Your task to perform on an android device: open app "Microsoft Authenticator" Image 0: 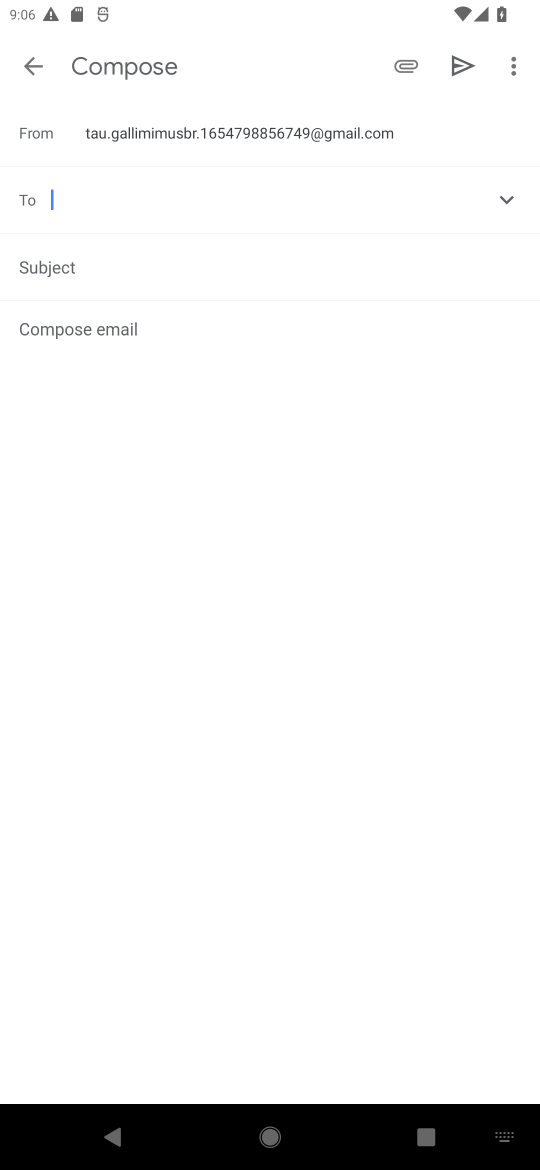
Step 0: press home button
Your task to perform on an android device: open app "Microsoft Authenticator" Image 1: 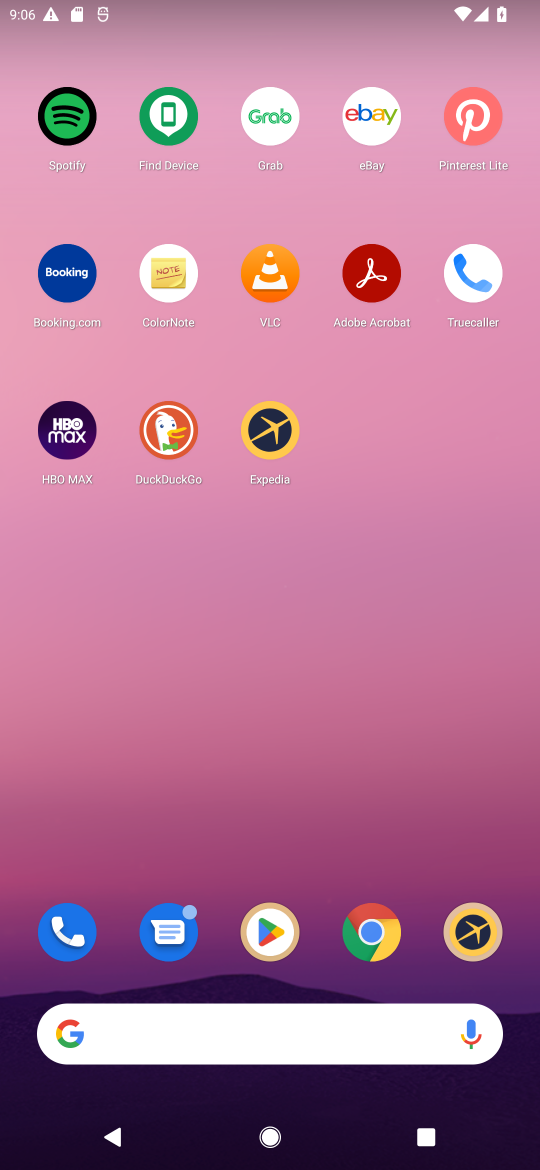
Step 1: click (273, 919)
Your task to perform on an android device: open app "Microsoft Authenticator" Image 2: 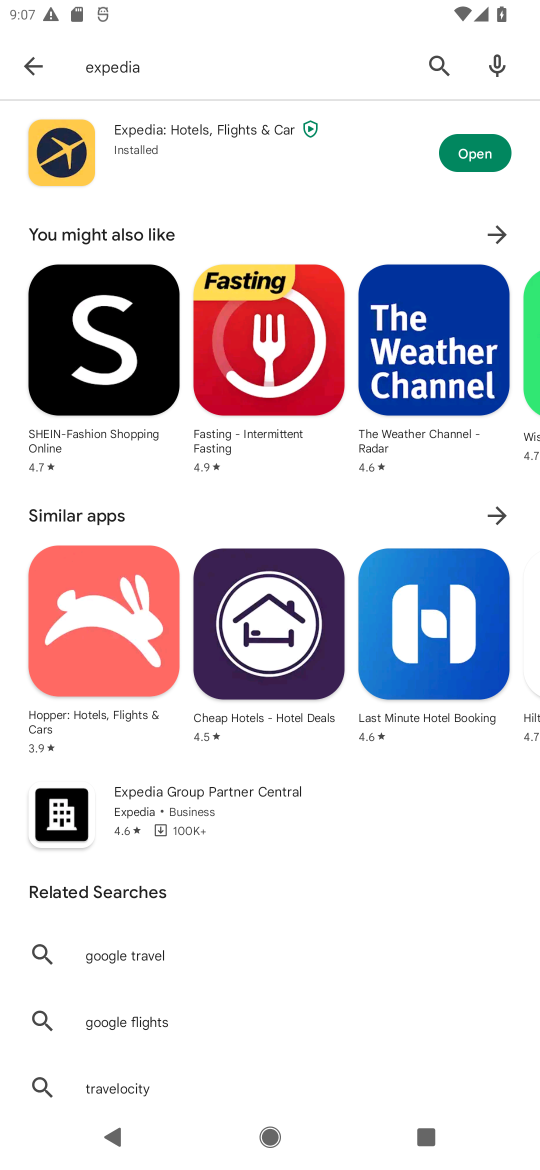
Step 2: click (430, 77)
Your task to perform on an android device: open app "Microsoft Authenticator" Image 3: 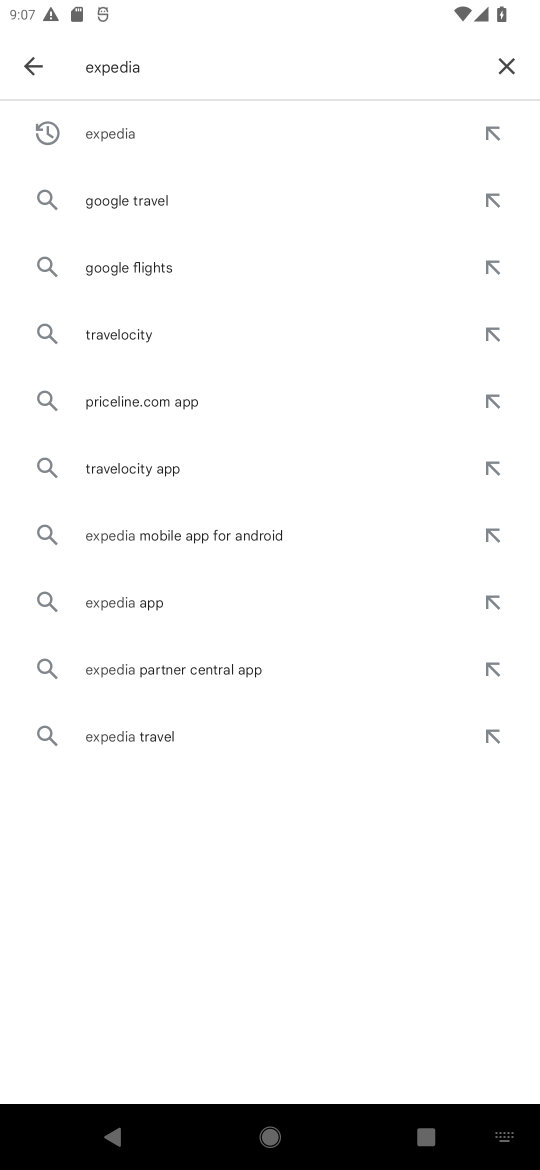
Step 3: click (506, 68)
Your task to perform on an android device: open app "Microsoft Authenticator" Image 4: 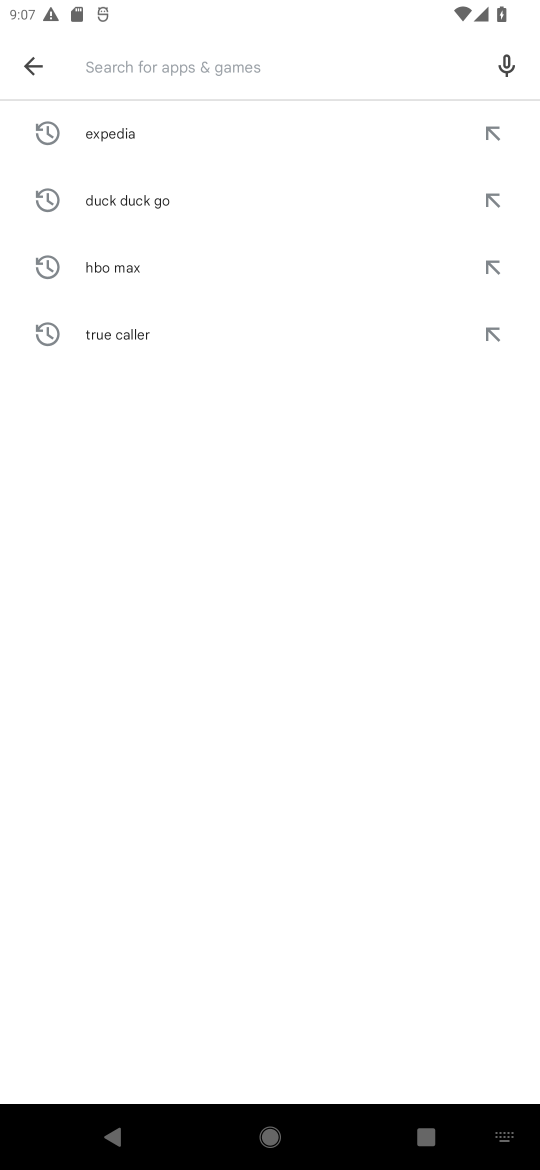
Step 4: type "microsoft"
Your task to perform on an android device: open app "Microsoft Authenticator" Image 5: 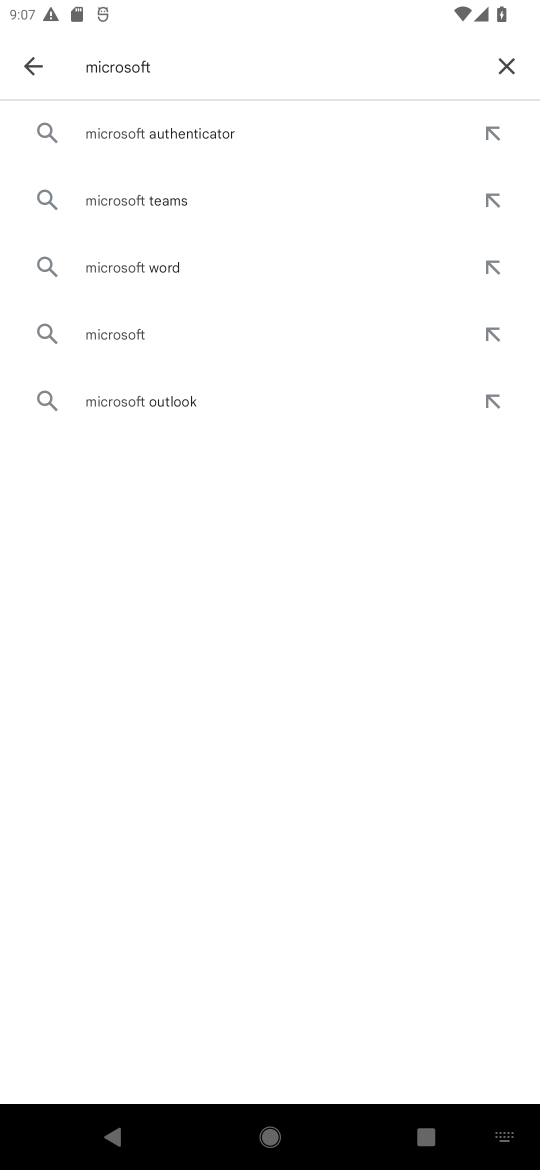
Step 5: click (178, 139)
Your task to perform on an android device: open app "Microsoft Authenticator" Image 6: 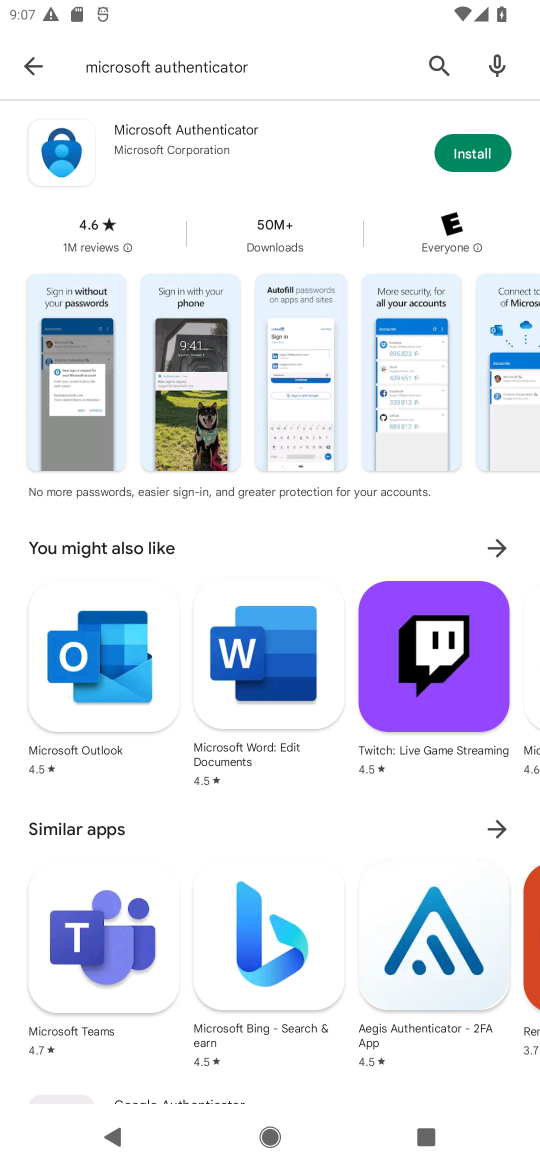
Step 6: click (454, 136)
Your task to perform on an android device: open app "Microsoft Authenticator" Image 7: 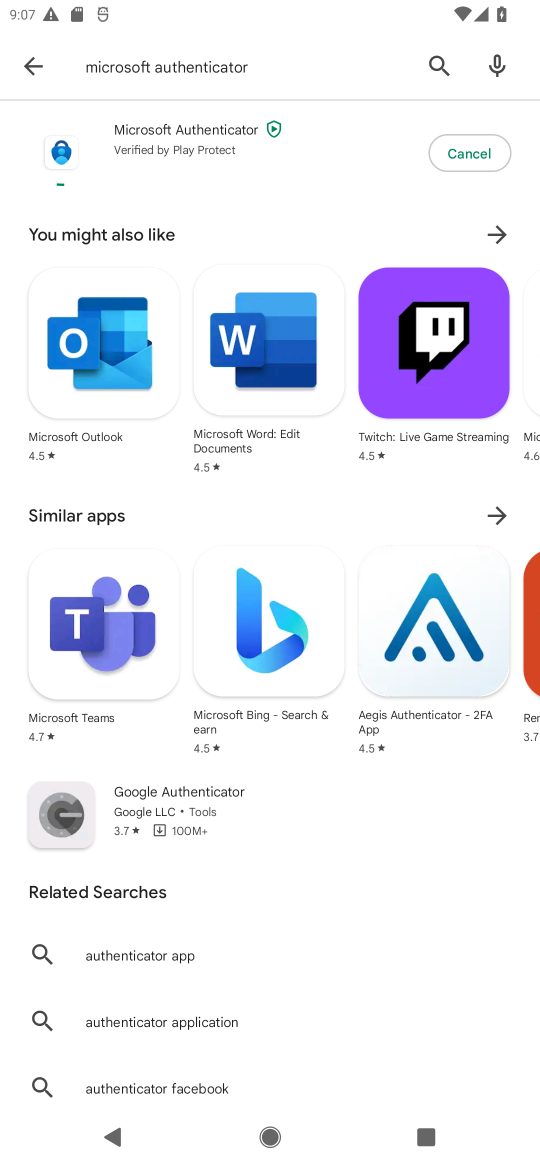
Step 7: task complete